Your task to perform on an android device: see tabs open on other devices in the chrome app Image 0: 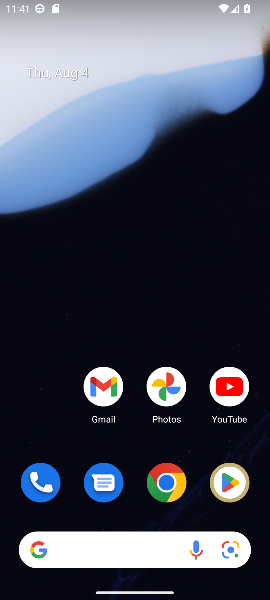
Step 0: click (175, 491)
Your task to perform on an android device: see tabs open on other devices in the chrome app Image 1: 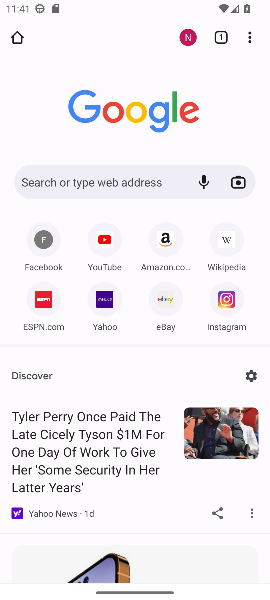
Step 1: click (247, 42)
Your task to perform on an android device: see tabs open on other devices in the chrome app Image 2: 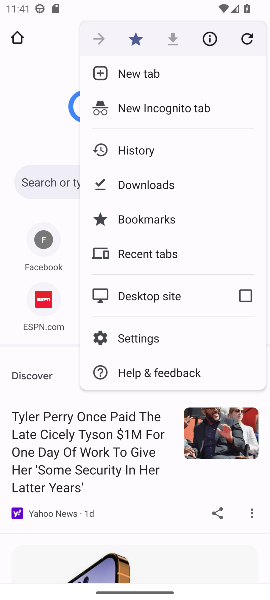
Step 2: click (181, 261)
Your task to perform on an android device: see tabs open on other devices in the chrome app Image 3: 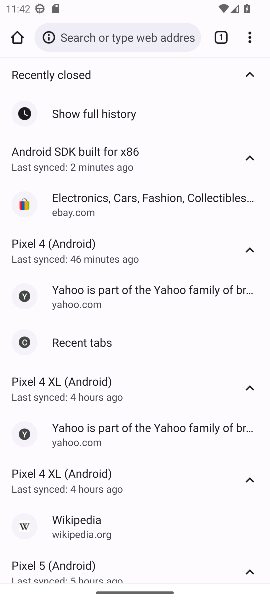
Step 3: task complete